Your task to perform on an android device: change timer sound Image 0: 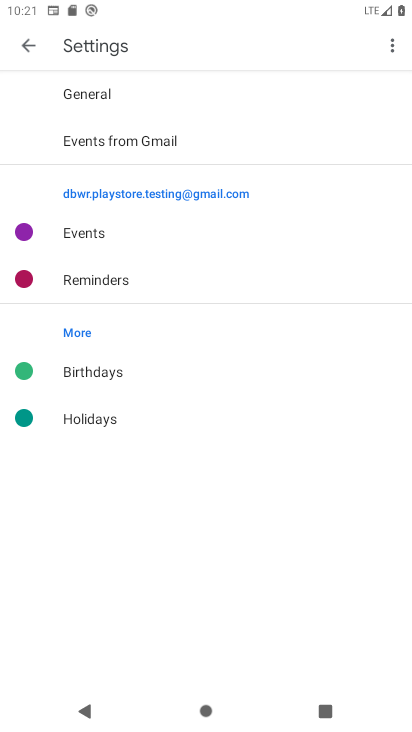
Step 0: task impossible